Your task to perform on an android device: turn on wifi Image 0: 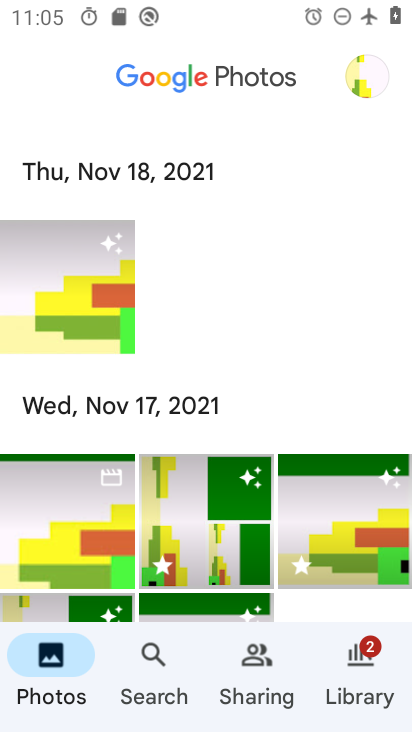
Step 0: press home button
Your task to perform on an android device: turn on wifi Image 1: 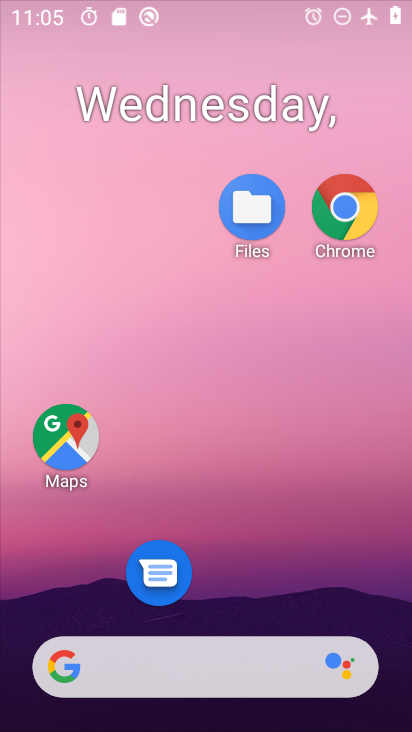
Step 1: drag from (219, 625) to (276, 68)
Your task to perform on an android device: turn on wifi Image 2: 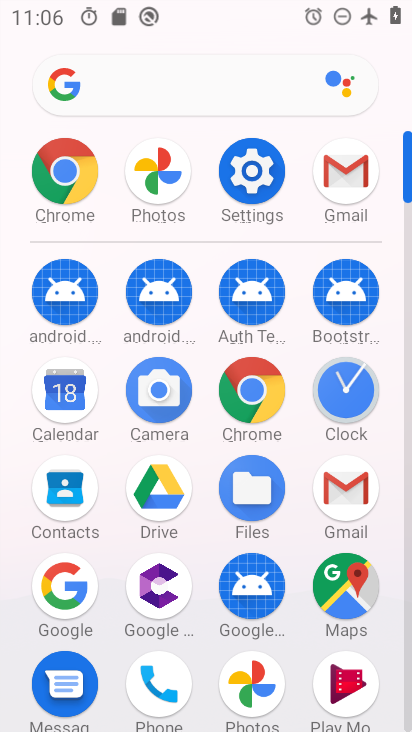
Step 2: click (261, 190)
Your task to perform on an android device: turn on wifi Image 3: 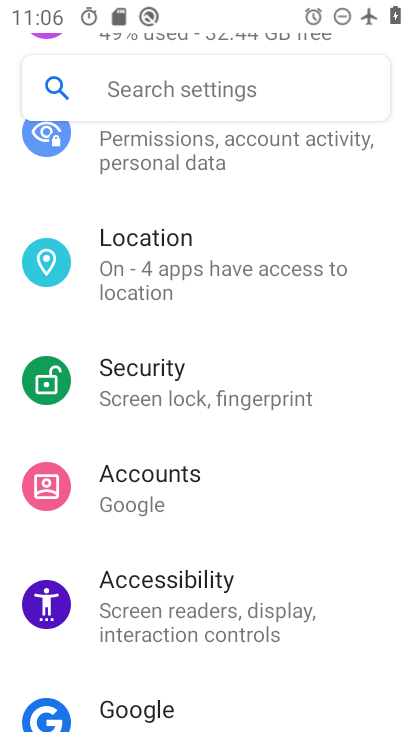
Step 3: drag from (175, 267) to (156, 711)
Your task to perform on an android device: turn on wifi Image 4: 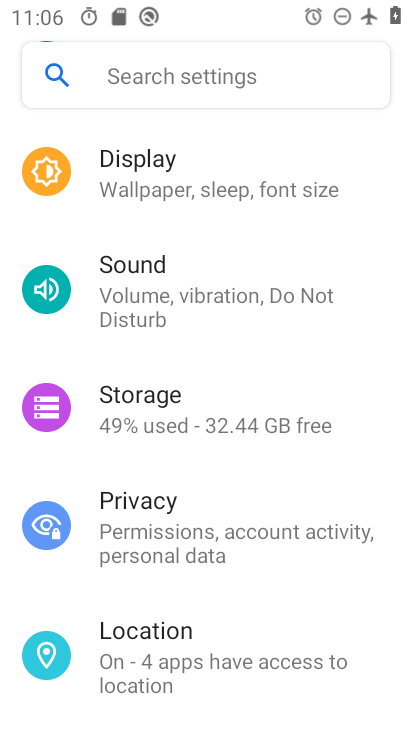
Step 4: drag from (183, 264) to (194, 694)
Your task to perform on an android device: turn on wifi Image 5: 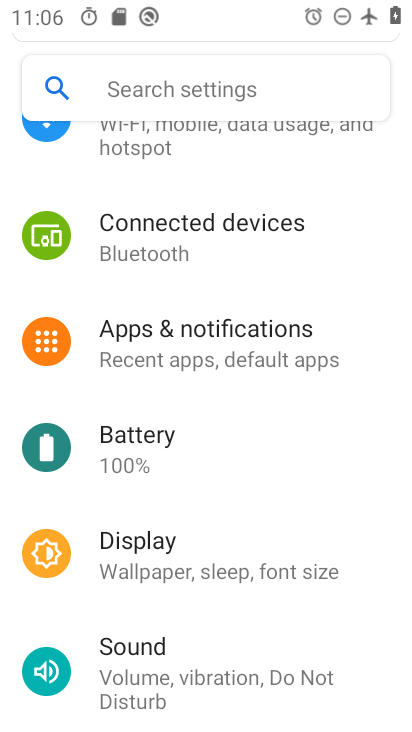
Step 5: drag from (213, 344) to (213, 694)
Your task to perform on an android device: turn on wifi Image 6: 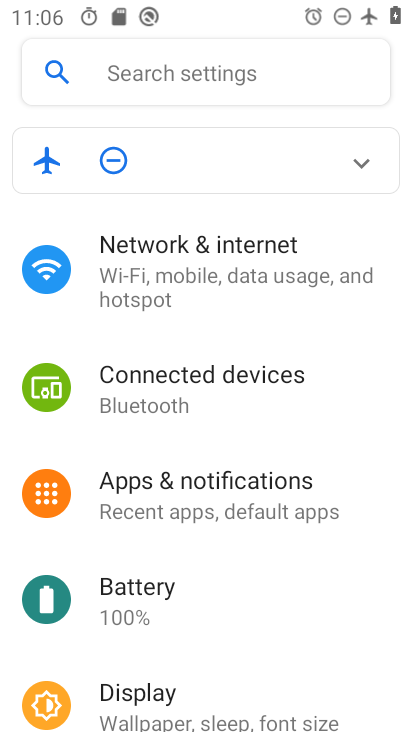
Step 6: click (258, 269)
Your task to perform on an android device: turn on wifi Image 7: 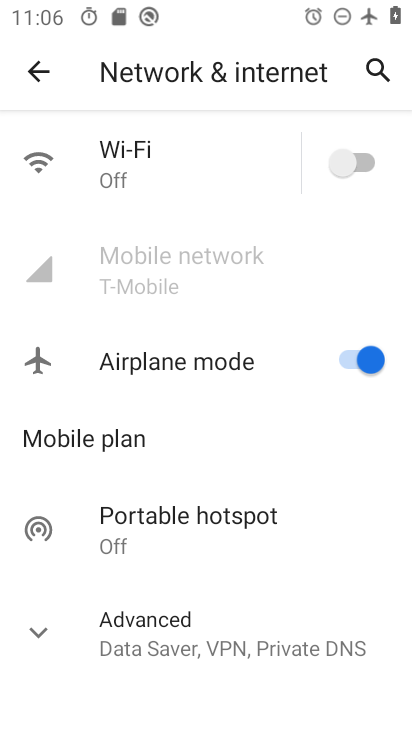
Step 7: click (362, 162)
Your task to perform on an android device: turn on wifi Image 8: 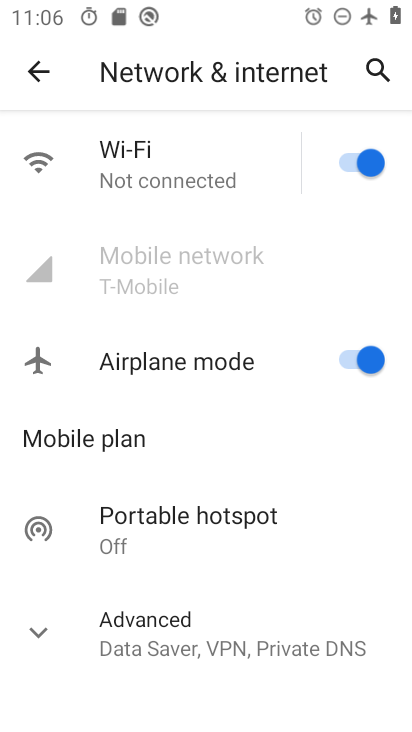
Step 8: task complete